Your task to perform on an android device: turn on the 24-hour format for clock Image 0: 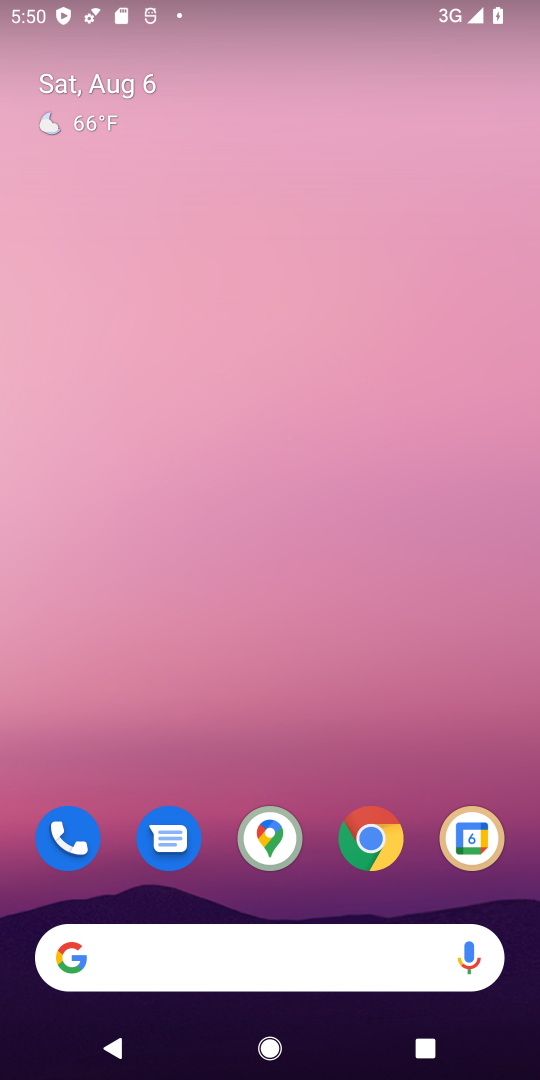
Step 0: drag from (217, 762) to (274, 30)
Your task to perform on an android device: turn on the 24-hour format for clock Image 1: 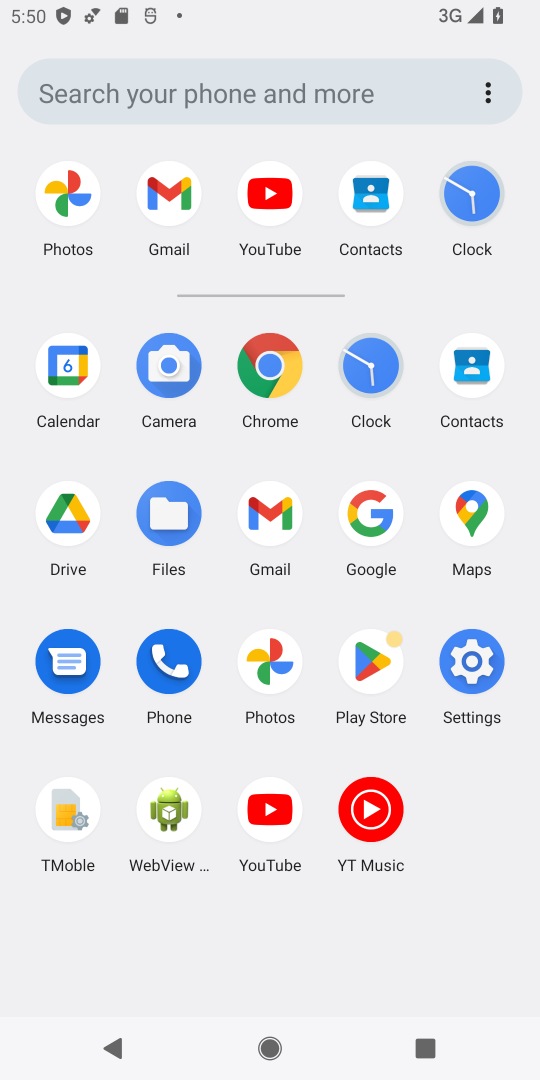
Step 1: click (352, 353)
Your task to perform on an android device: turn on the 24-hour format for clock Image 2: 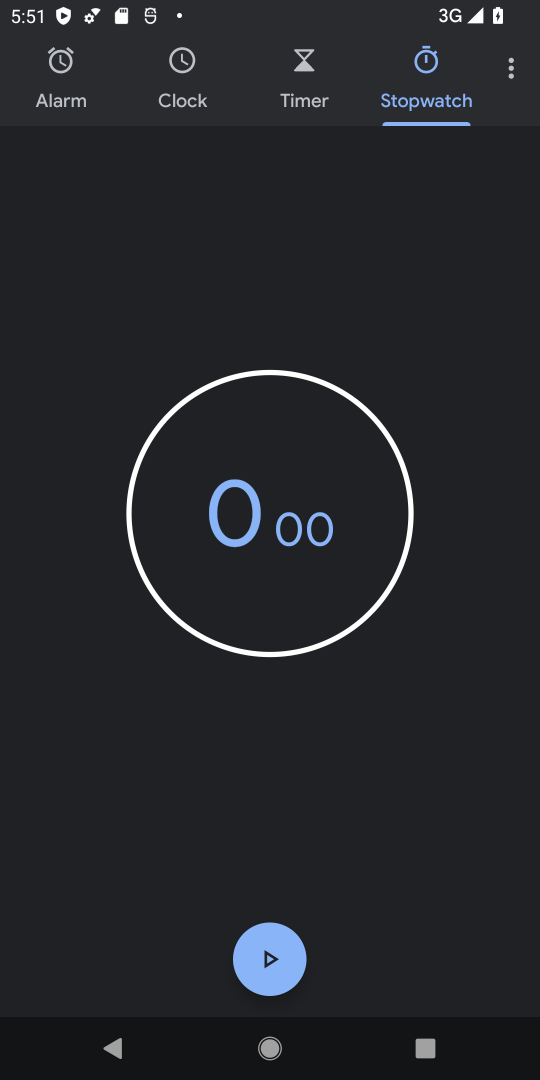
Step 2: click (517, 70)
Your task to perform on an android device: turn on the 24-hour format for clock Image 3: 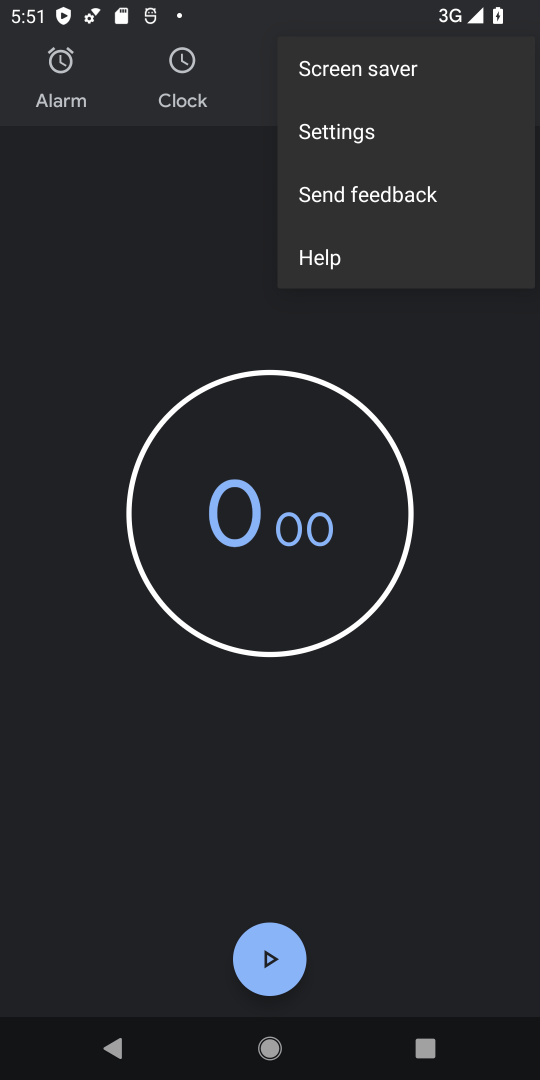
Step 3: click (382, 140)
Your task to perform on an android device: turn on the 24-hour format for clock Image 4: 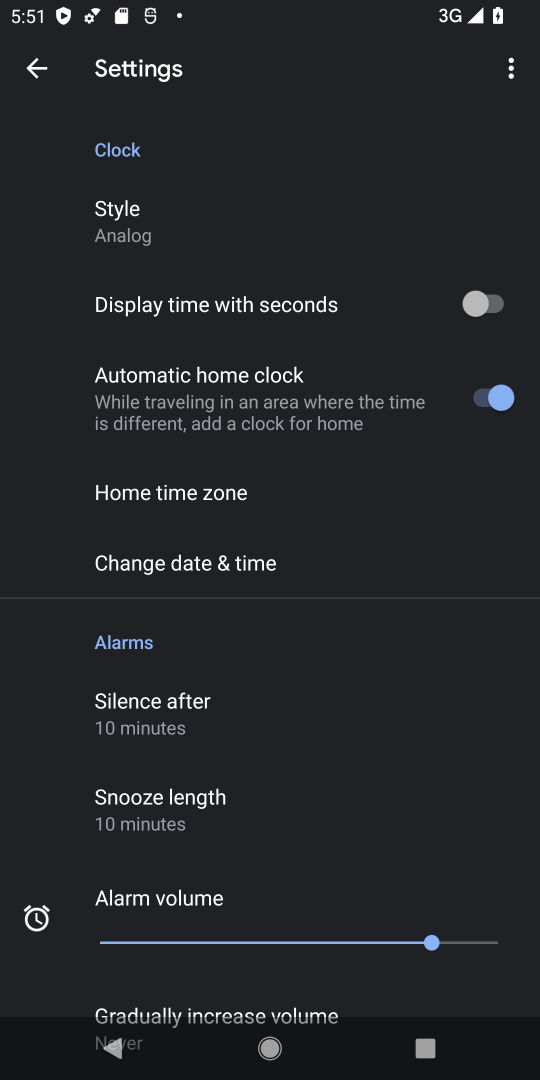
Step 4: click (314, 562)
Your task to perform on an android device: turn on the 24-hour format for clock Image 5: 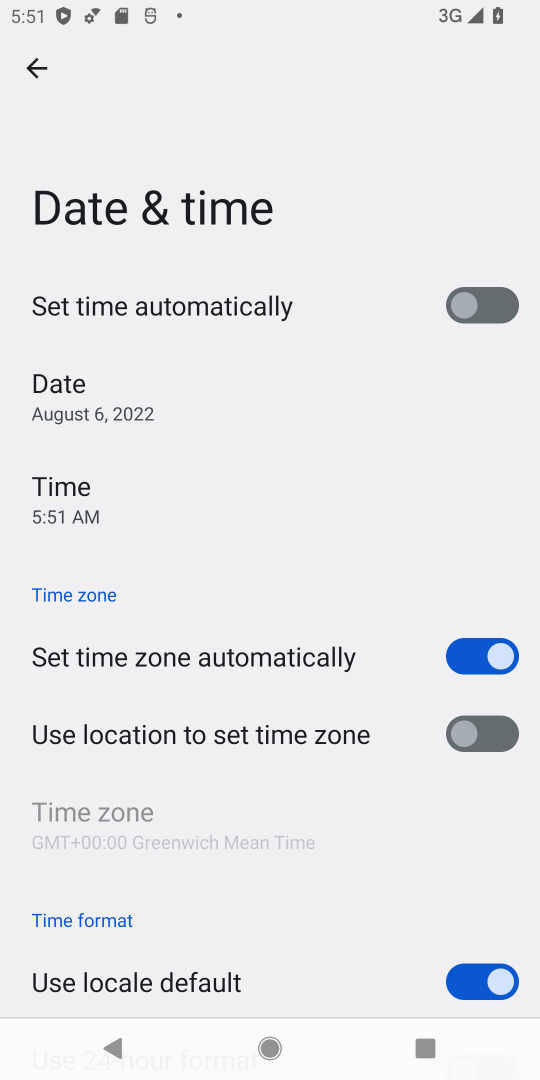
Step 5: drag from (322, 882) to (165, 103)
Your task to perform on an android device: turn on the 24-hour format for clock Image 6: 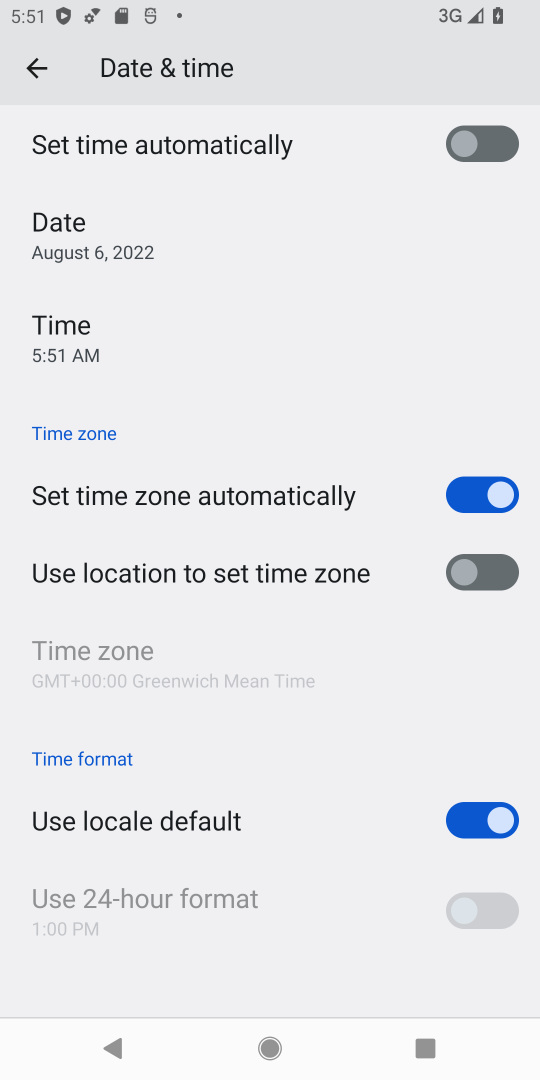
Step 6: click (468, 817)
Your task to perform on an android device: turn on the 24-hour format for clock Image 7: 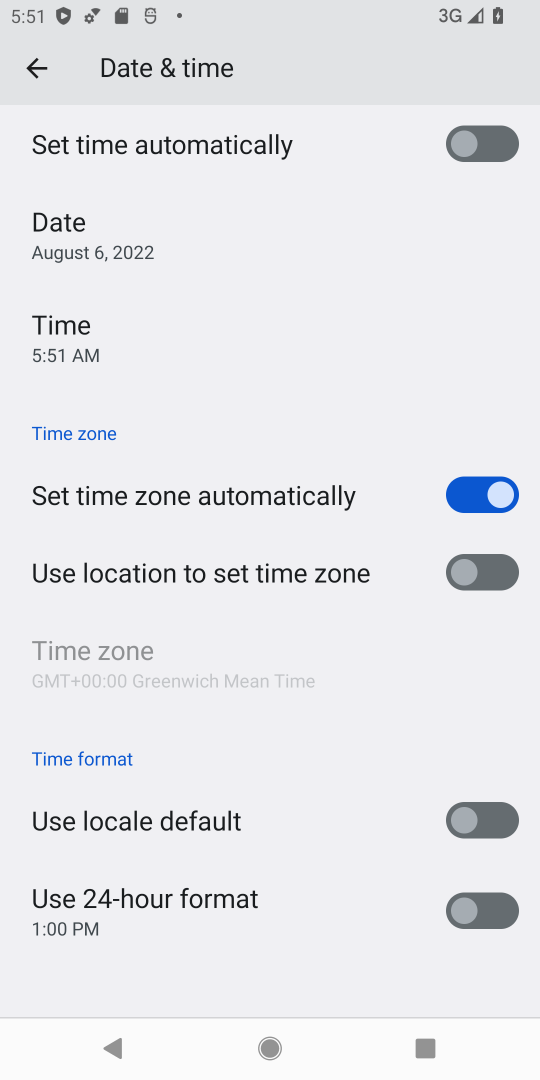
Step 7: click (483, 917)
Your task to perform on an android device: turn on the 24-hour format for clock Image 8: 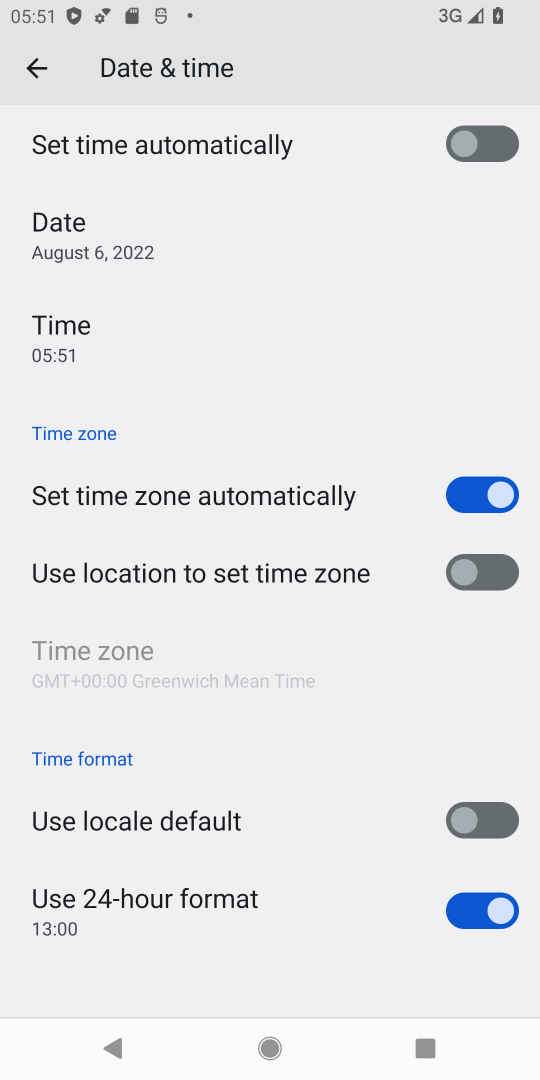
Step 8: task complete